Your task to perform on an android device: turn off airplane mode Image 0: 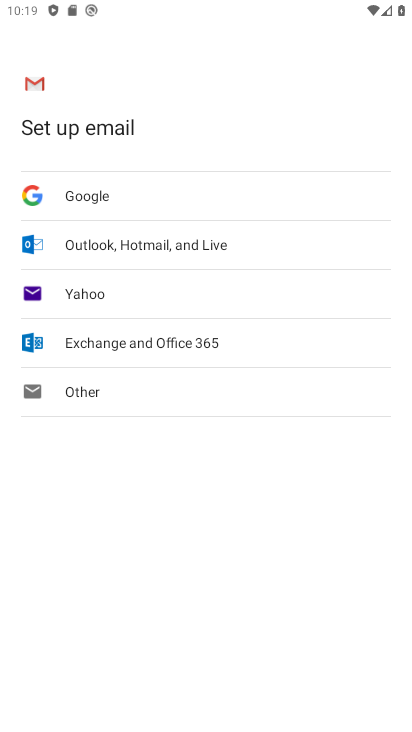
Step 0: drag from (286, 565) to (358, 204)
Your task to perform on an android device: turn off airplane mode Image 1: 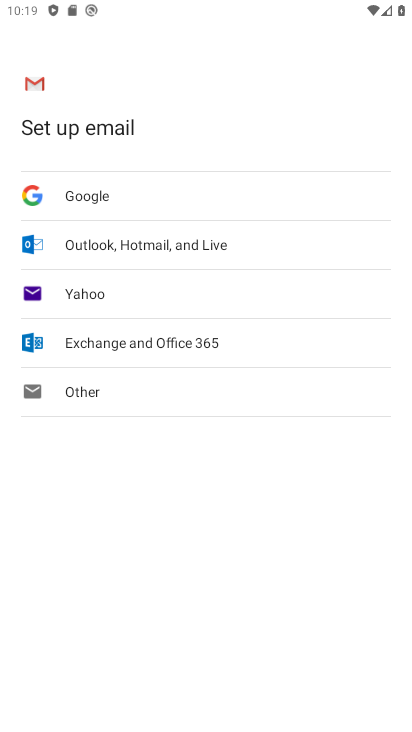
Step 1: press home button
Your task to perform on an android device: turn off airplane mode Image 2: 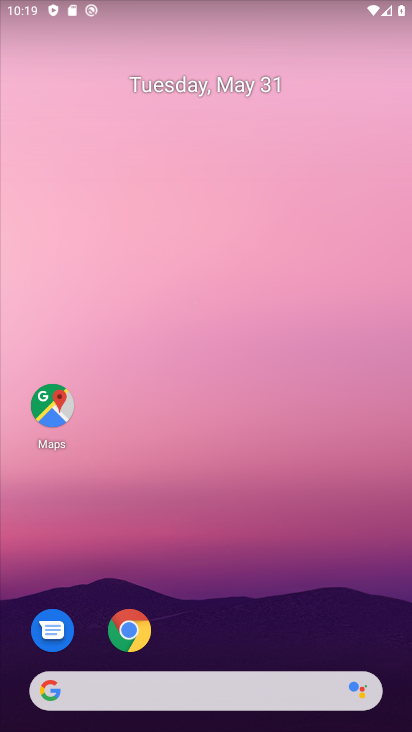
Step 2: drag from (288, 568) to (244, 161)
Your task to perform on an android device: turn off airplane mode Image 3: 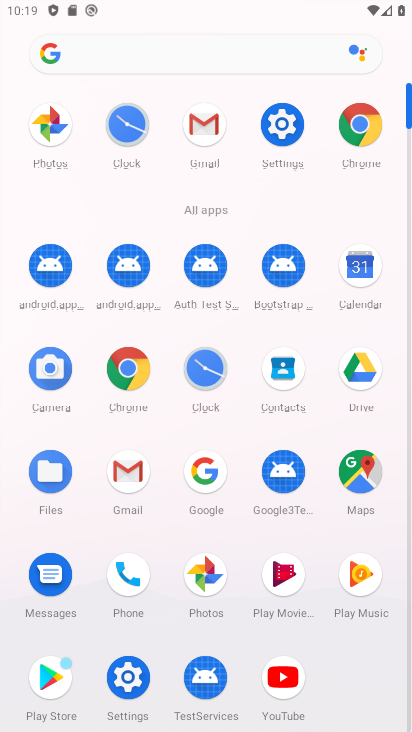
Step 3: click (303, 129)
Your task to perform on an android device: turn off airplane mode Image 4: 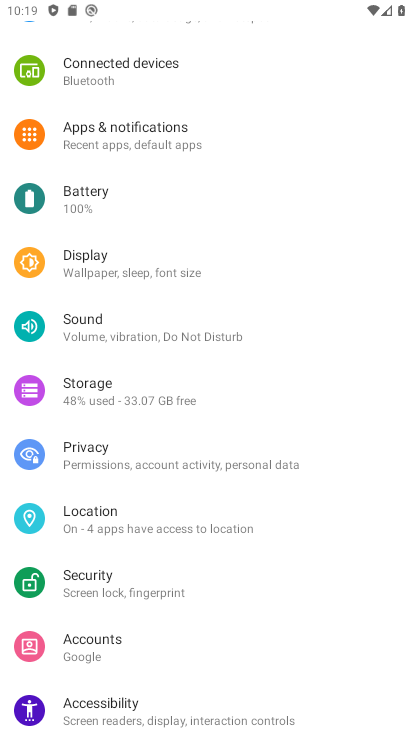
Step 4: drag from (258, 459) to (297, 95)
Your task to perform on an android device: turn off airplane mode Image 5: 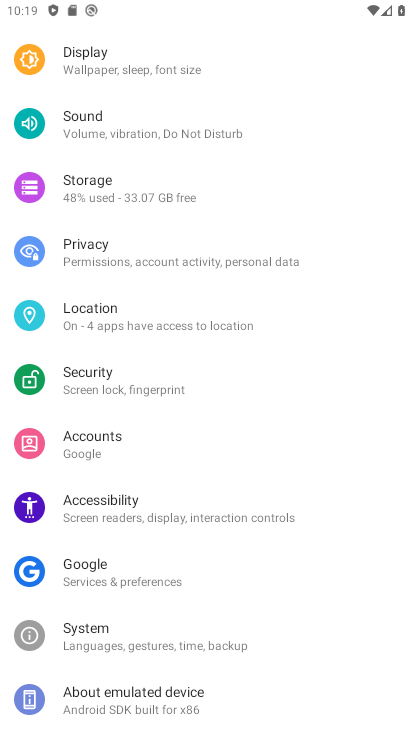
Step 5: drag from (220, 172) to (210, 680)
Your task to perform on an android device: turn off airplane mode Image 6: 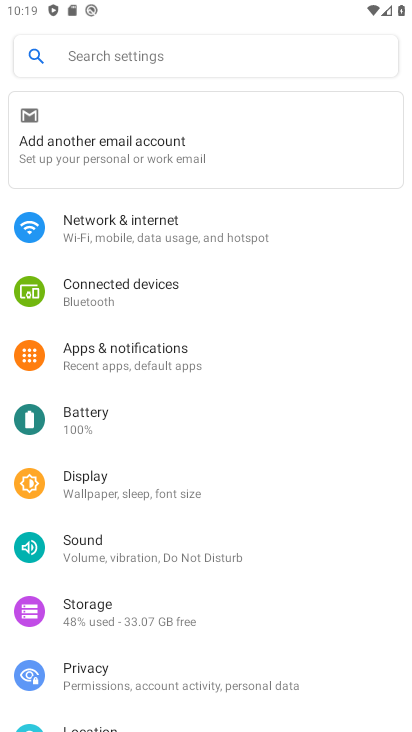
Step 6: click (178, 229)
Your task to perform on an android device: turn off airplane mode Image 7: 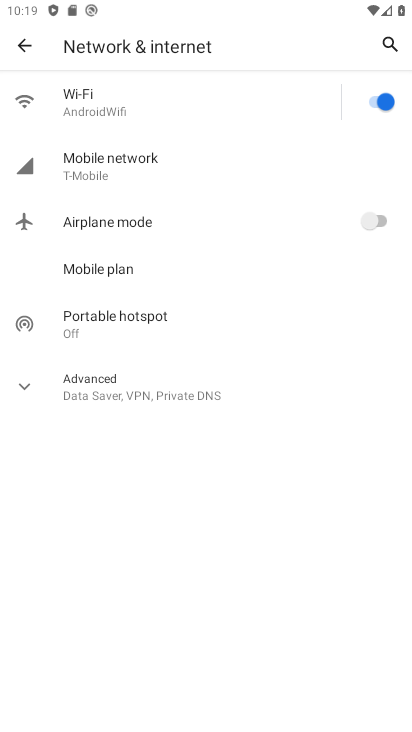
Step 7: task complete